Your task to perform on an android device: choose inbox layout in the gmail app Image 0: 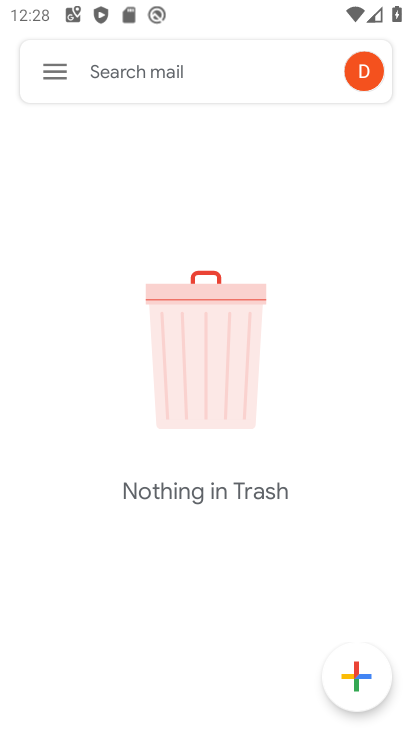
Step 0: click (47, 71)
Your task to perform on an android device: choose inbox layout in the gmail app Image 1: 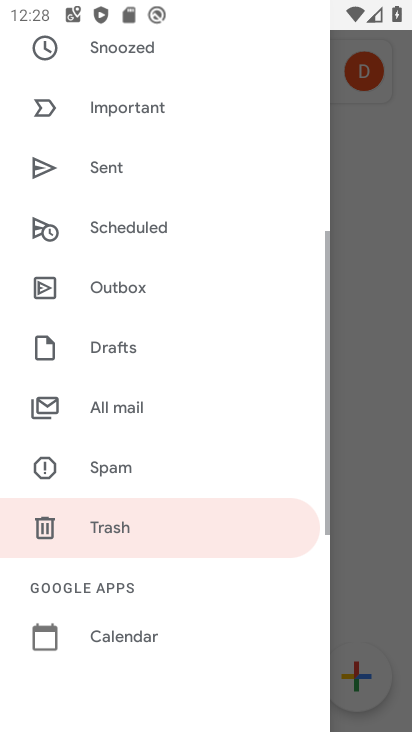
Step 1: drag from (102, 479) to (62, 17)
Your task to perform on an android device: choose inbox layout in the gmail app Image 2: 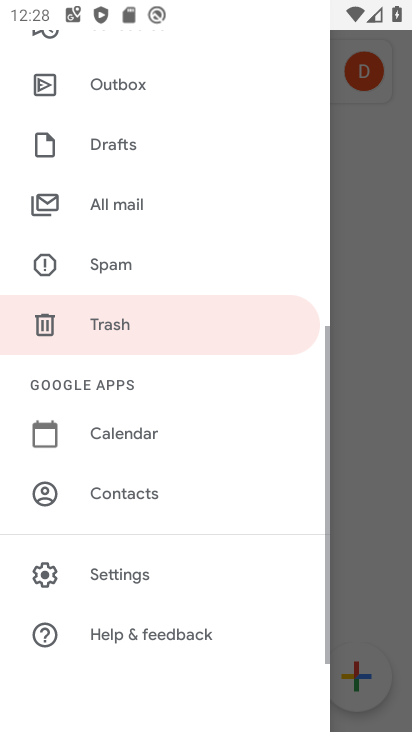
Step 2: click (118, 566)
Your task to perform on an android device: choose inbox layout in the gmail app Image 3: 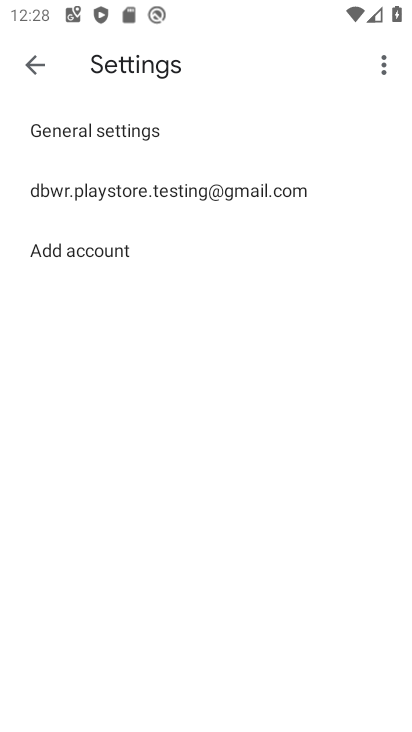
Step 3: click (137, 199)
Your task to perform on an android device: choose inbox layout in the gmail app Image 4: 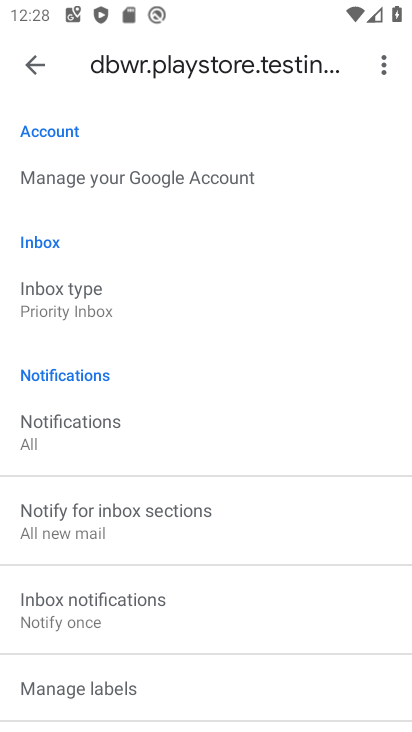
Step 4: click (112, 315)
Your task to perform on an android device: choose inbox layout in the gmail app Image 5: 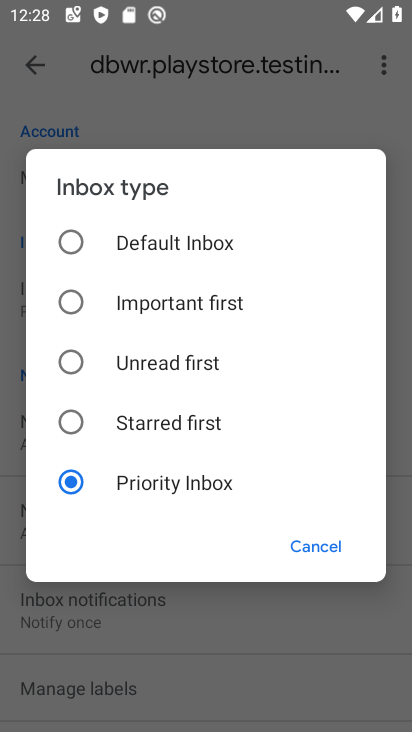
Step 5: click (155, 477)
Your task to perform on an android device: choose inbox layout in the gmail app Image 6: 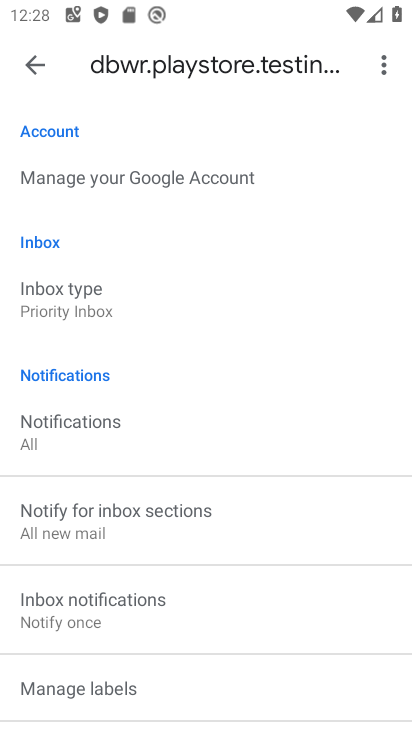
Step 6: click (43, 83)
Your task to perform on an android device: choose inbox layout in the gmail app Image 7: 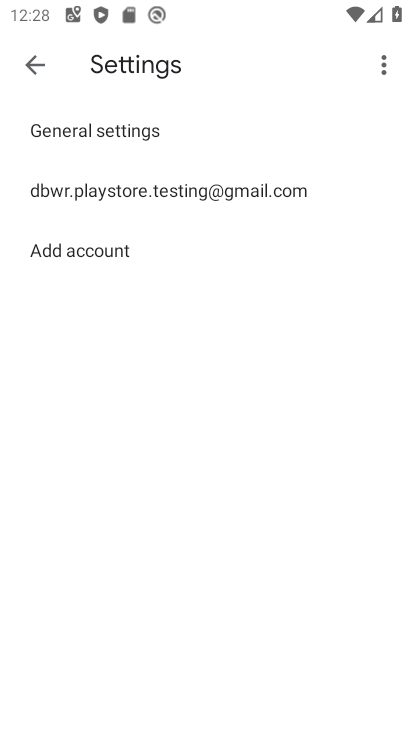
Step 7: click (36, 62)
Your task to perform on an android device: choose inbox layout in the gmail app Image 8: 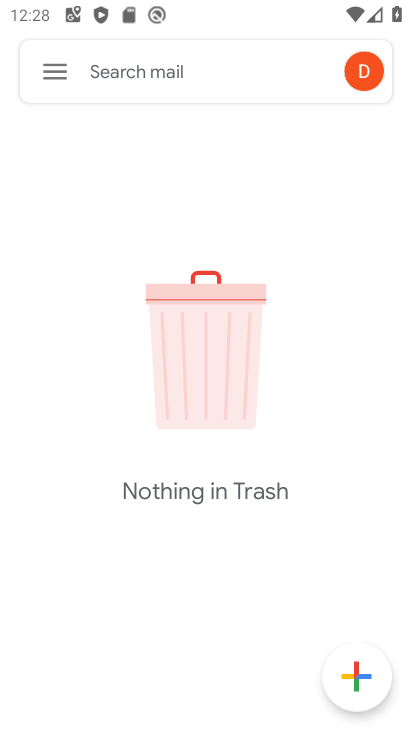
Step 8: click (50, 76)
Your task to perform on an android device: choose inbox layout in the gmail app Image 9: 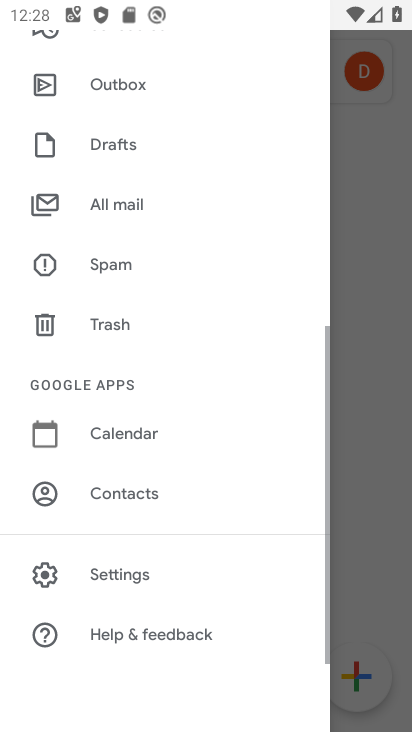
Step 9: drag from (100, 147) to (82, 515)
Your task to perform on an android device: choose inbox layout in the gmail app Image 10: 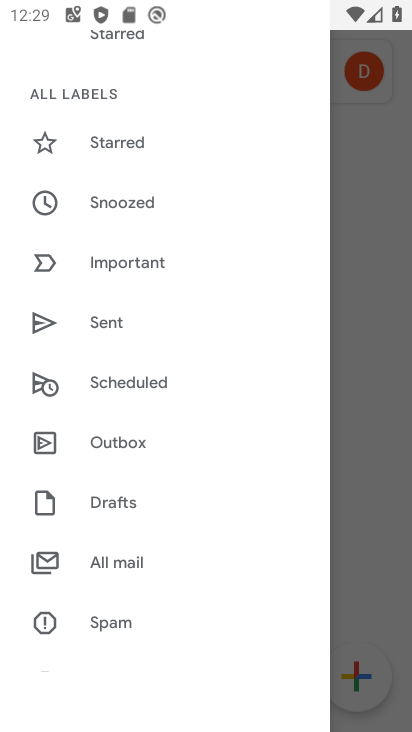
Step 10: drag from (112, 121) to (98, 570)
Your task to perform on an android device: choose inbox layout in the gmail app Image 11: 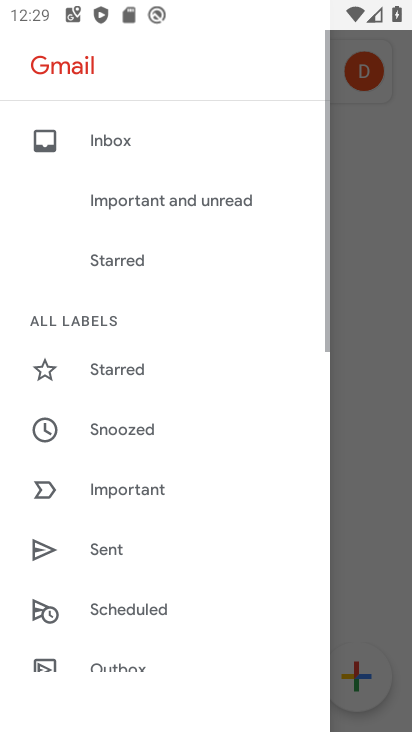
Step 11: click (117, 146)
Your task to perform on an android device: choose inbox layout in the gmail app Image 12: 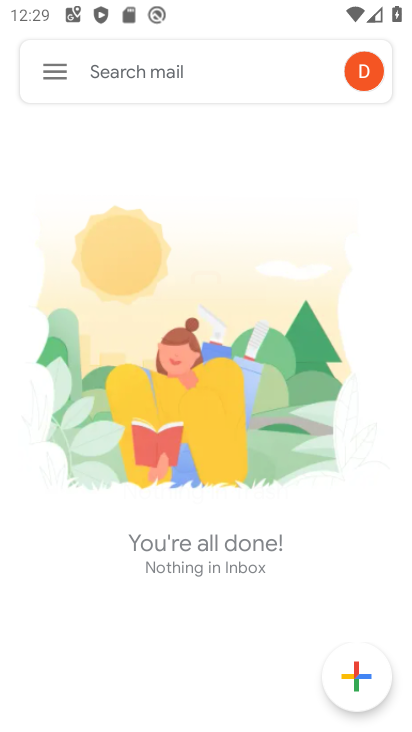
Step 12: task complete